Your task to perform on an android device: turn off translation in the chrome app Image 0: 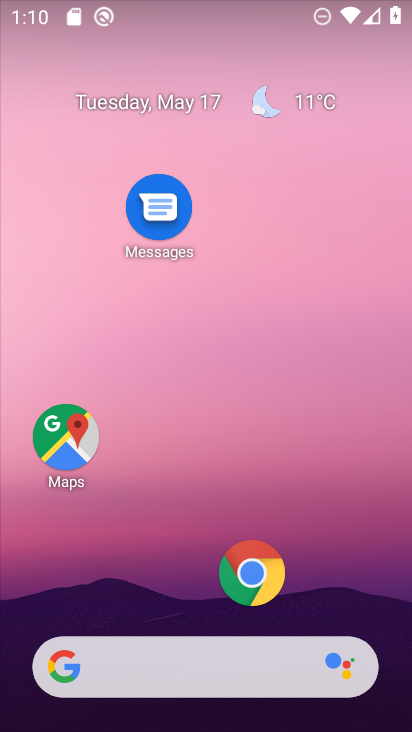
Step 0: drag from (203, 608) to (244, 213)
Your task to perform on an android device: turn off translation in the chrome app Image 1: 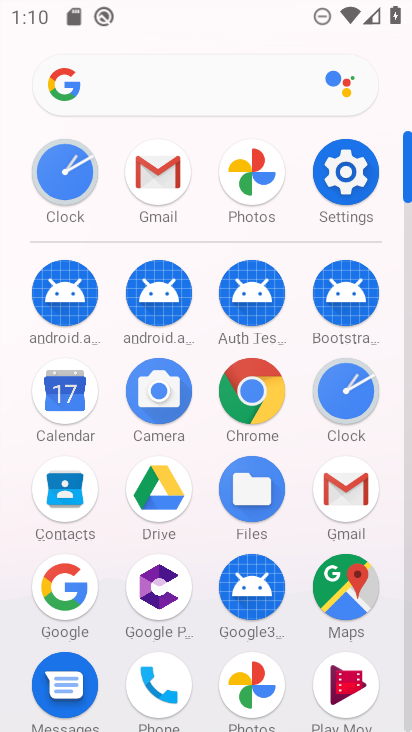
Step 1: click (249, 383)
Your task to perform on an android device: turn off translation in the chrome app Image 2: 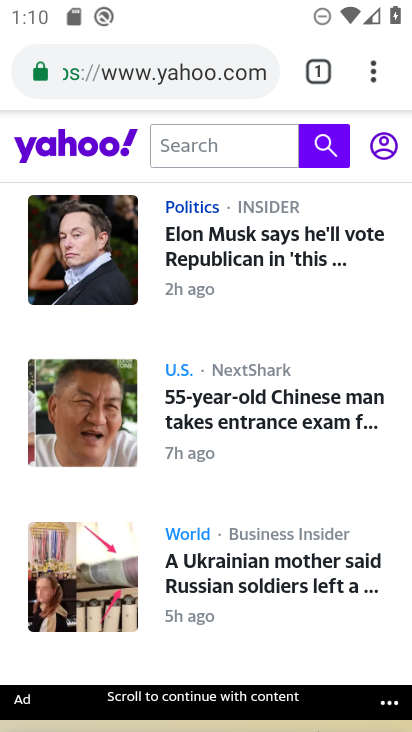
Step 2: click (372, 66)
Your task to perform on an android device: turn off translation in the chrome app Image 3: 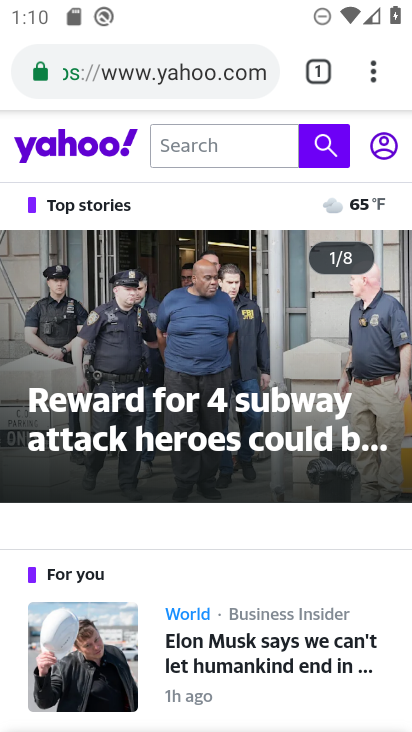
Step 3: click (371, 68)
Your task to perform on an android device: turn off translation in the chrome app Image 4: 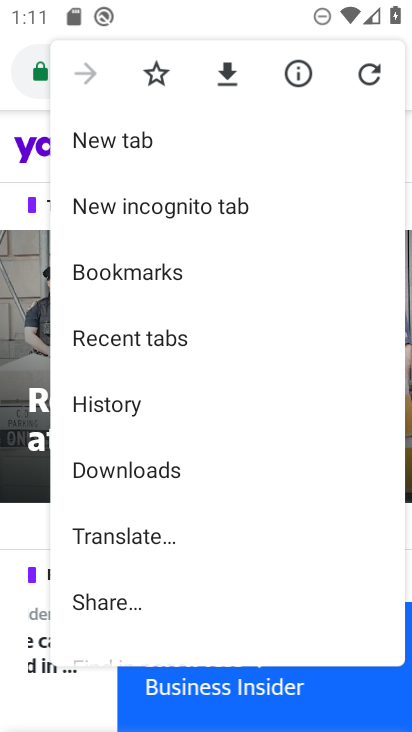
Step 4: drag from (194, 582) to (219, 112)
Your task to perform on an android device: turn off translation in the chrome app Image 5: 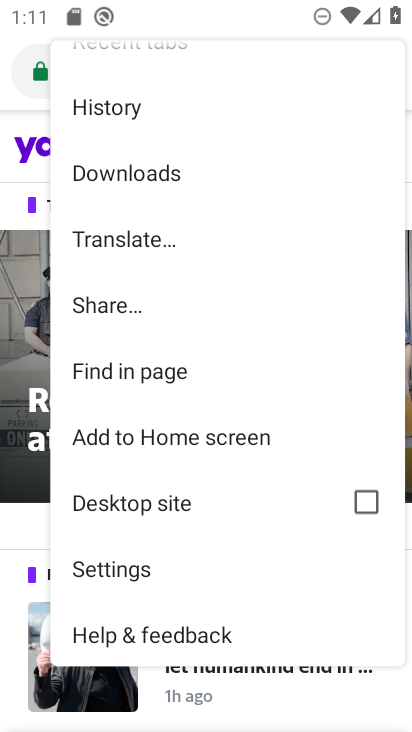
Step 5: click (164, 563)
Your task to perform on an android device: turn off translation in the chrome app Image 6: 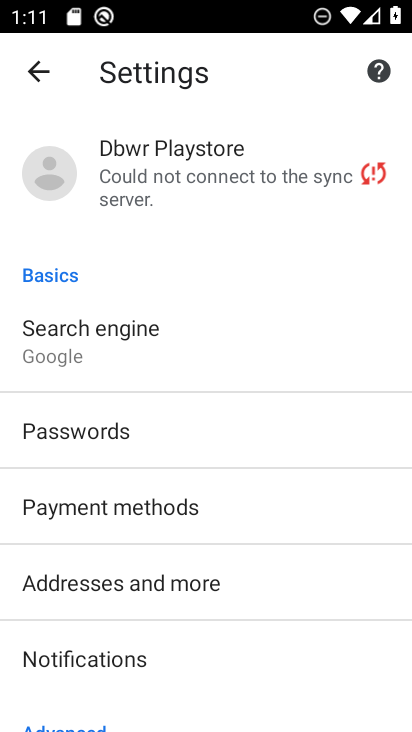
Step 6: drag from (241, 656) to (235, 199)
Your task to perform on an android device: turn off translation in the chrome app Image 7: 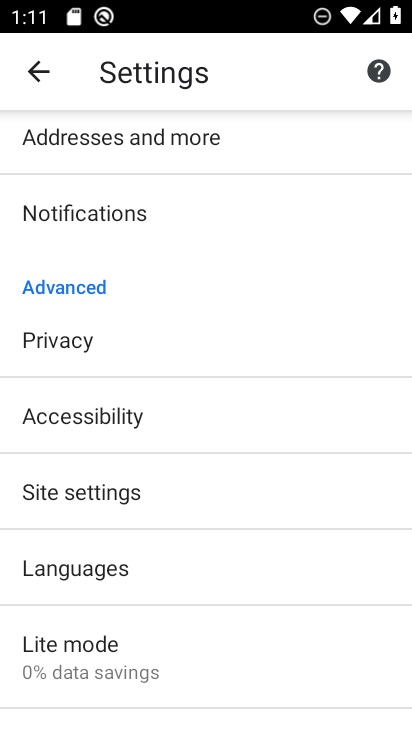
Step 7: click (151, 566)
Your task to perform on an android device: turn off translation in the chrome app Image 8: 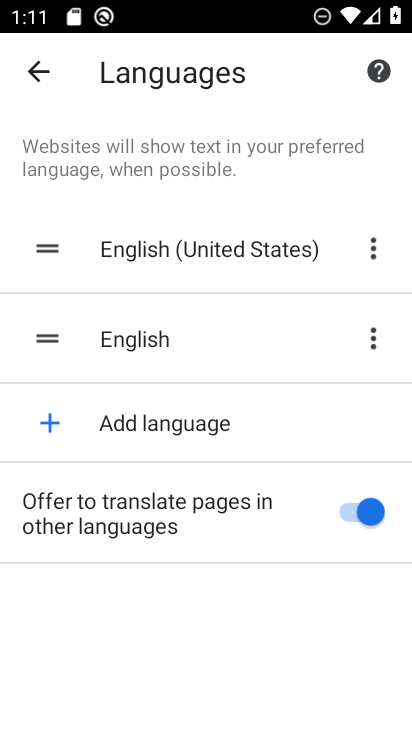
Step 8: click (352, 503)
Your task to perform on an android device: turn off translation in the chrome app Image 9: 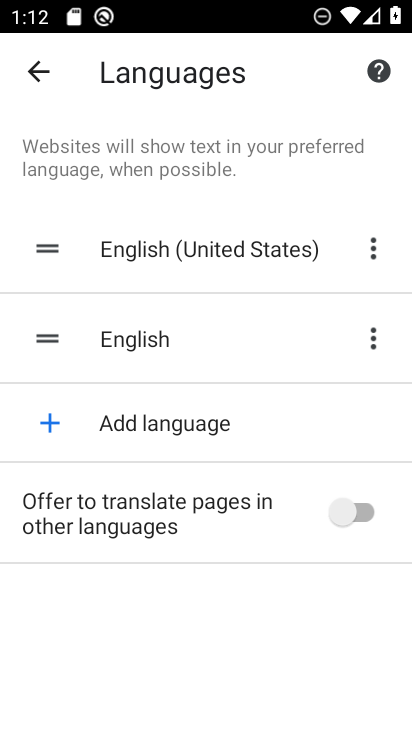
Step 9: task complete